Your task to perform on an android device: Turn on the flashlight Image 0: 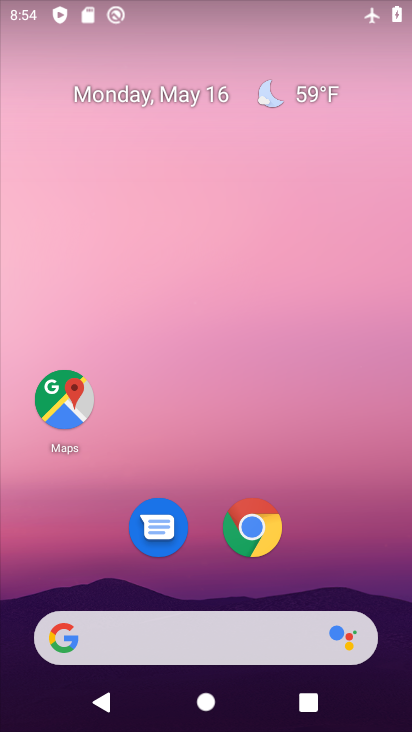
Step 0: drag from (400, 646) to (400, 203)
Your task to perform on an android device: Turn on the flashlight Image 1: 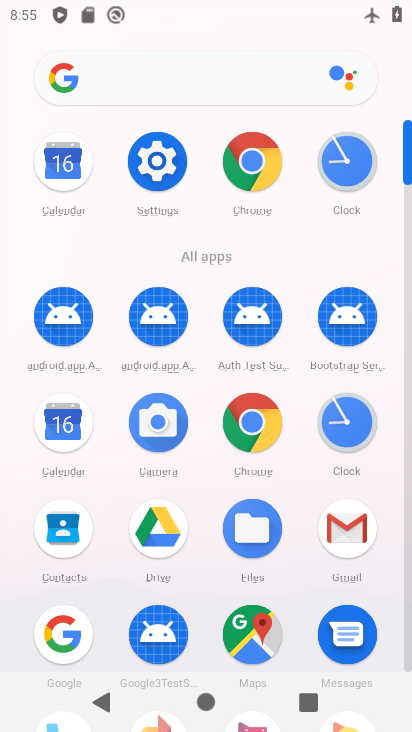
Step 1: click (159, 163)
Your task to perform on an android device: Turn on the flashlight Image 2: 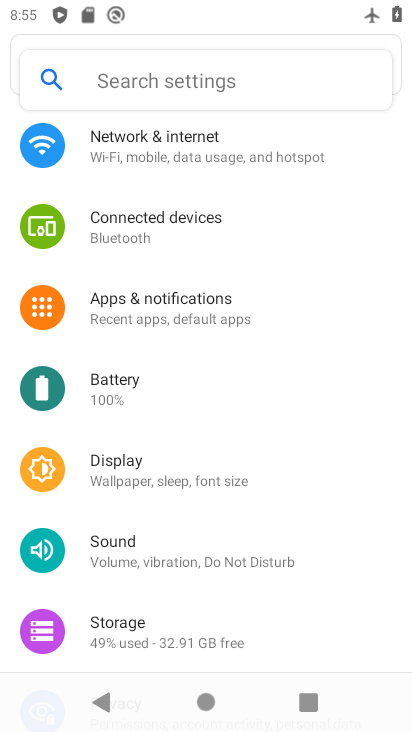
Step 2: click (141, 308)
Your task to perform on an android device: Turn on the flashlight Image 3: 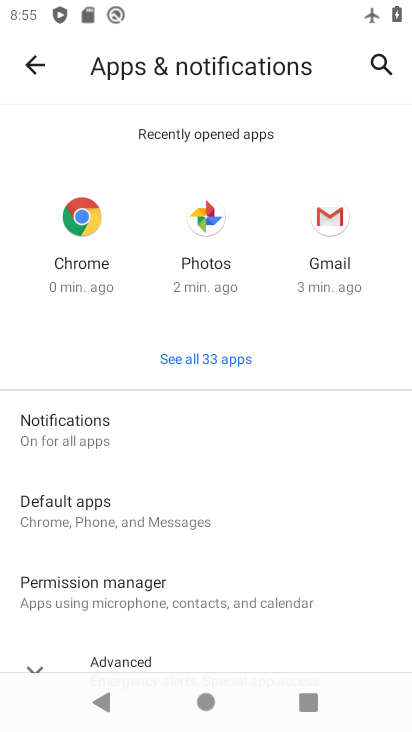
Step 3: task complete